Your task to perform on an android device: open app "VLC for Android" (install if not already installed) and enter user name: "Yves@outlook.com" and password: "internally" Image 0: 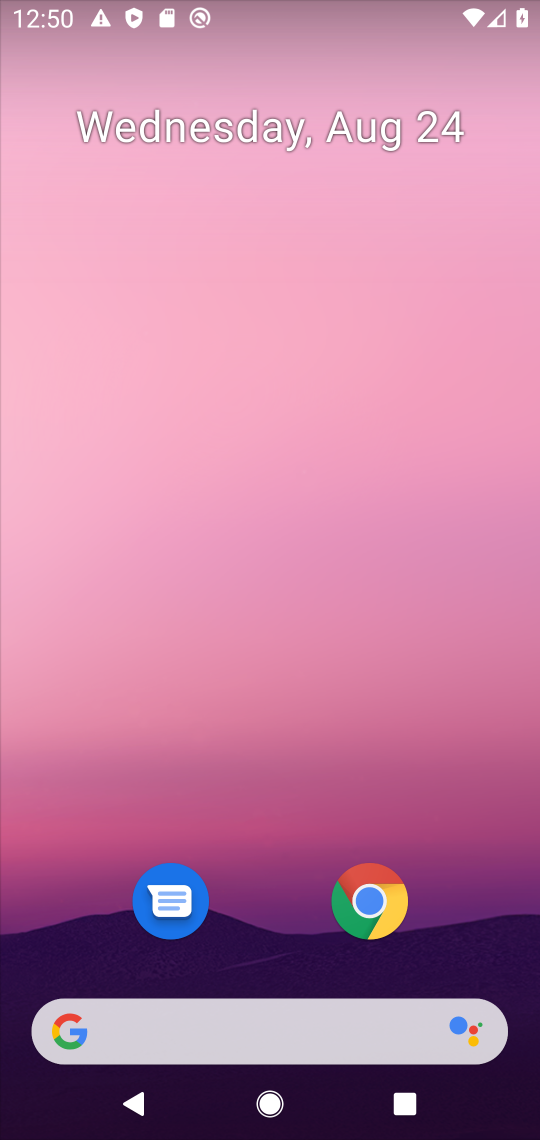
Step 0: drag from (241, 961) to (346, 25)
Your task to perform on an android device: open app "VLC for Android" (install if not already installed) and enter user name: "Yves@outlook.com" and password: "internally" Image 1: 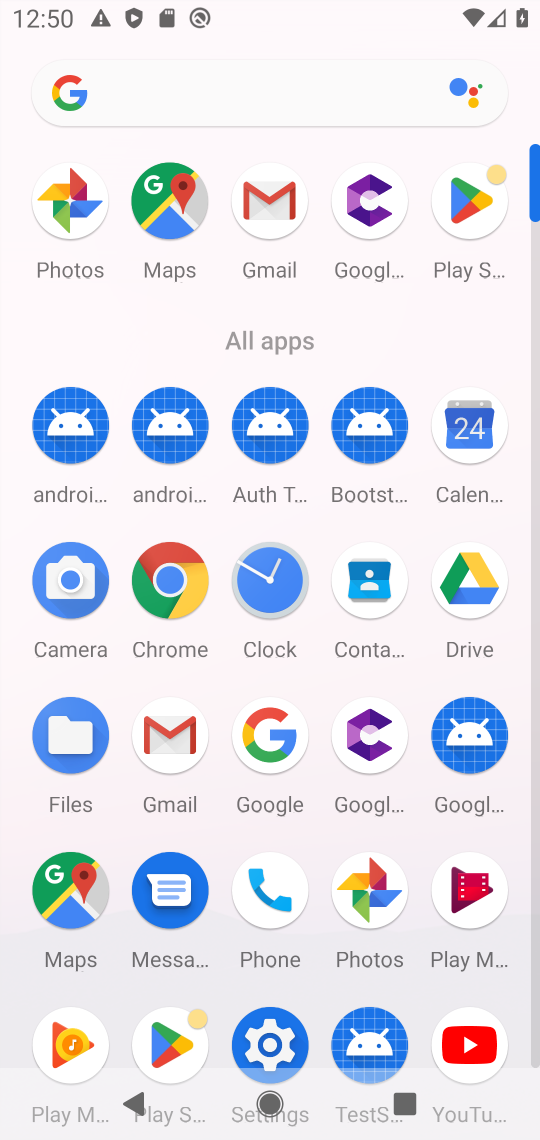
Step 1: click (466, 187)
Your task to perform on an android device: open app "VLC for Android" (install if not already installed) and enter user name: "Yves@outlook.com" and password: "internally" Image 2: 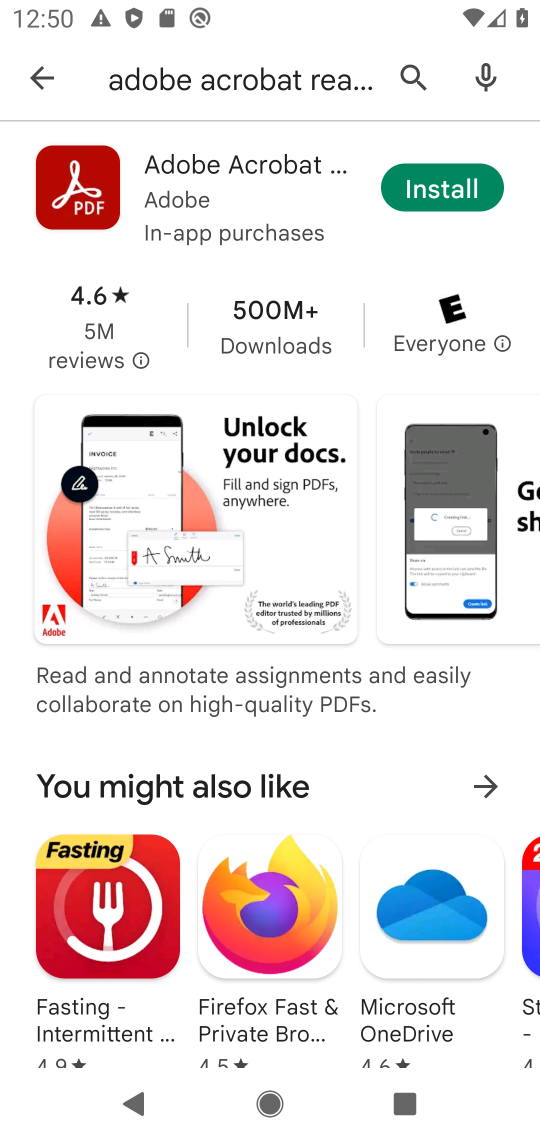
Step 2: click (416, 59)
Your task to perform on an android device: open app "VLC for Android" (install if not already installed) and enter user name: "Yves@outlook.com" and password: "internally" Image 3: 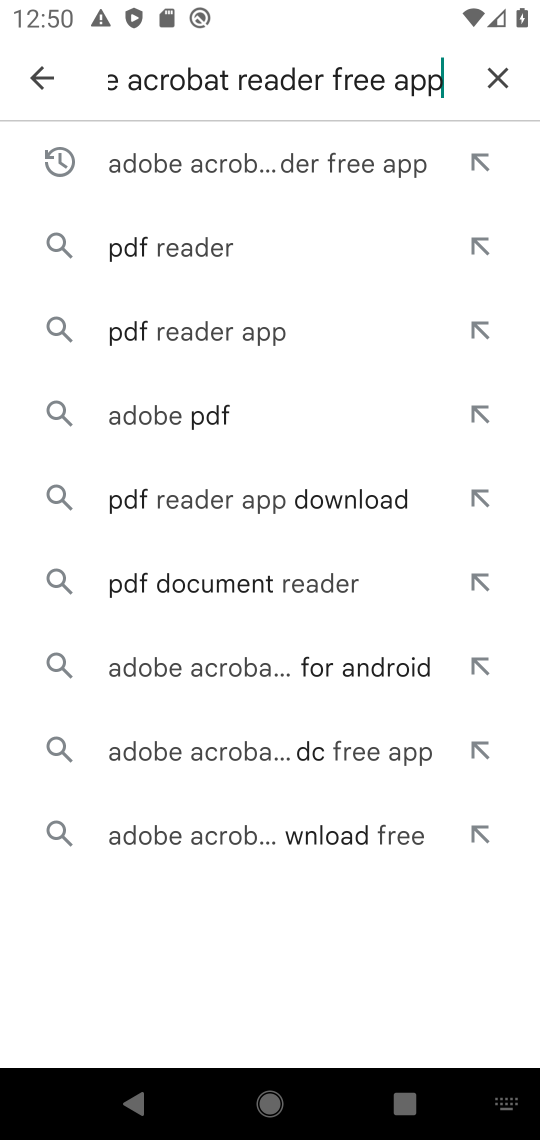
Step 3: click (500, 78)
Your task to perform on an android device: open app "VLC for Android" (install if not already installed) and enter user name: "Yves@outlook.com" and password: "internally" Image 4: 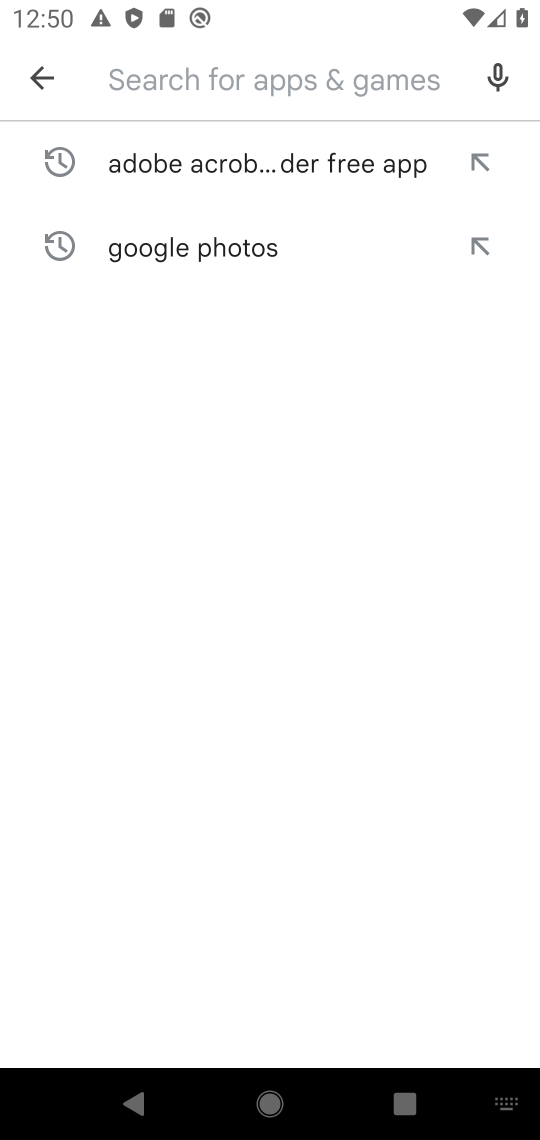
Step 4: type "vlc"
Your task to perform on an android device: open app "VLC for Android" (install if not already installed) and enter user name: "Yves@outlook.com" and password: "internally" Image 5: 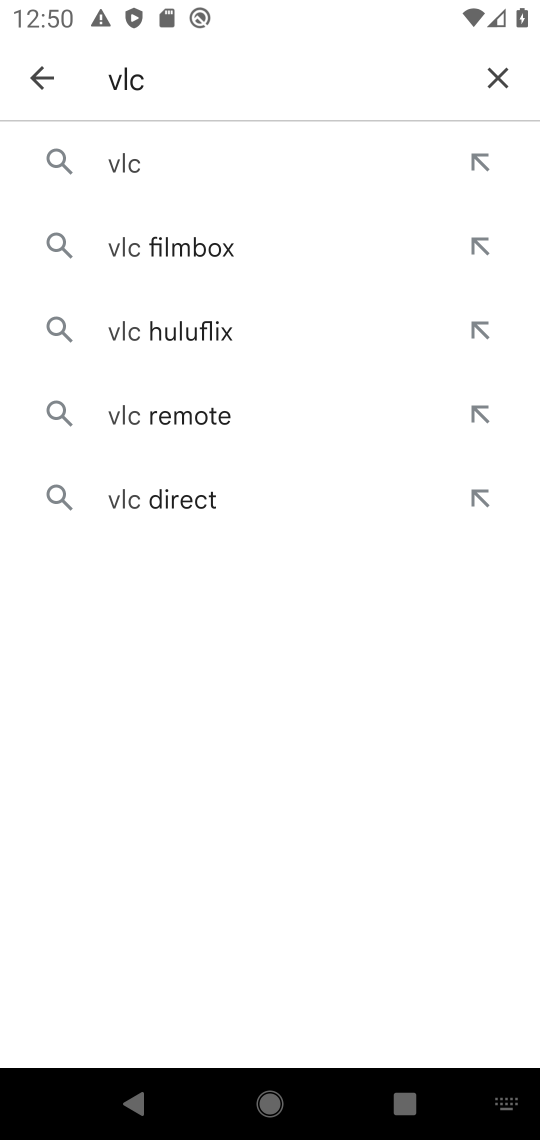
Step 5: click (167, 148)
Your task to perform on an android device: open app "VLC for Android" (install if not already installed) and enter user name: "Yves@outlook.com" and password: "internally" Image 6: 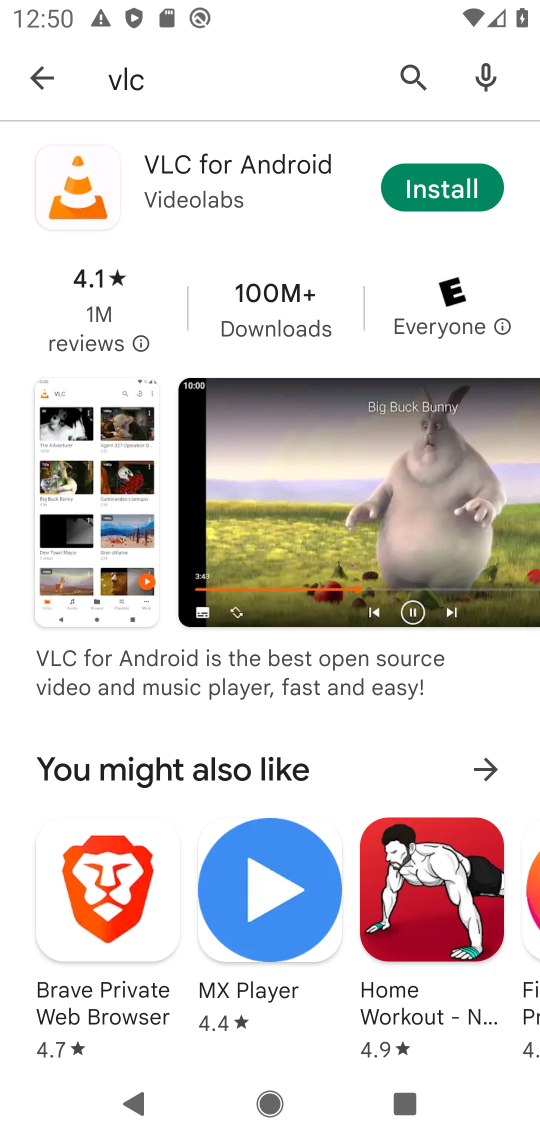
Step 6: click (415, 189)
Your task to perform on an android device: open app "VLC for Android" (install if not already installed) and enter user name: "Yves@outlook.com" and password: "internally" Image 7: 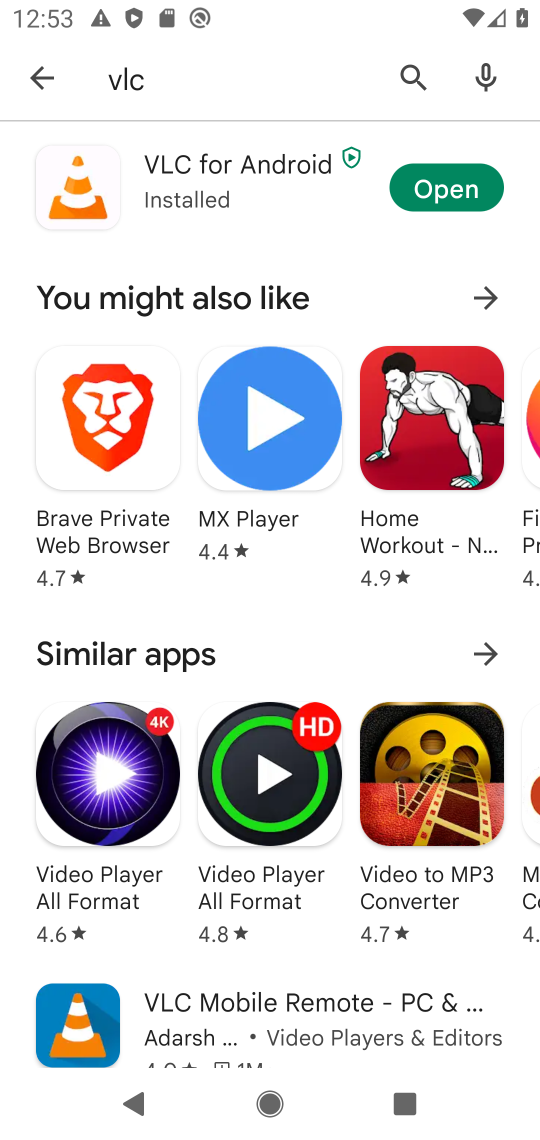
Step 7: click (418, 196)
Your task to perform on an android device: open app "VLC for Android" (install if not already installed) and enter user name: "Yves@outlook.com" and password: "internally" Image 8: 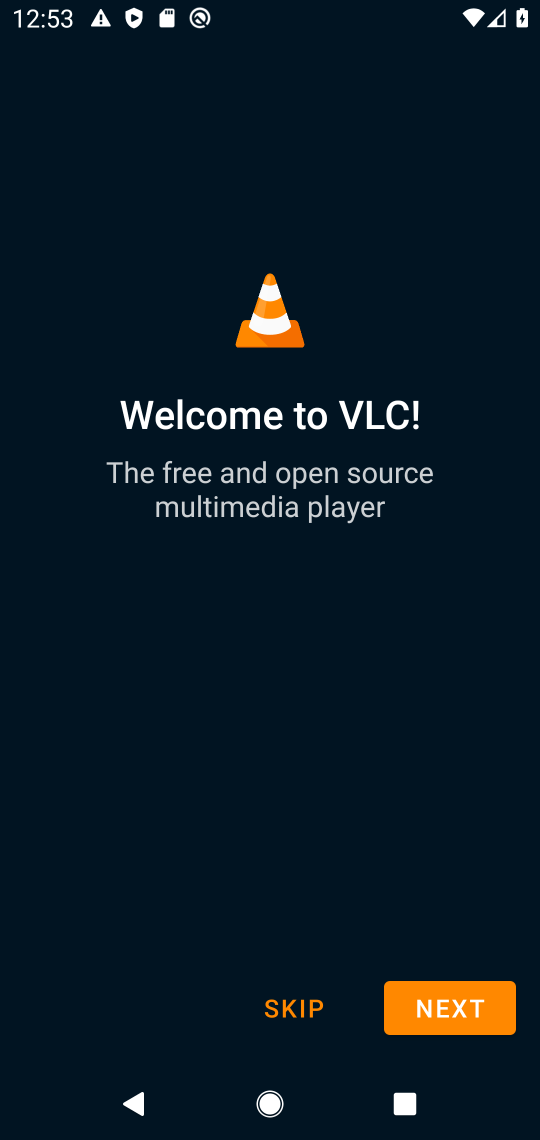
Step 8: click (301, 1003)
Your task to perform on an android device: open app "VLC for Android" (install if not already installed) and enter user name: "Yves@outlook.com" and password: "internally" Image 9: 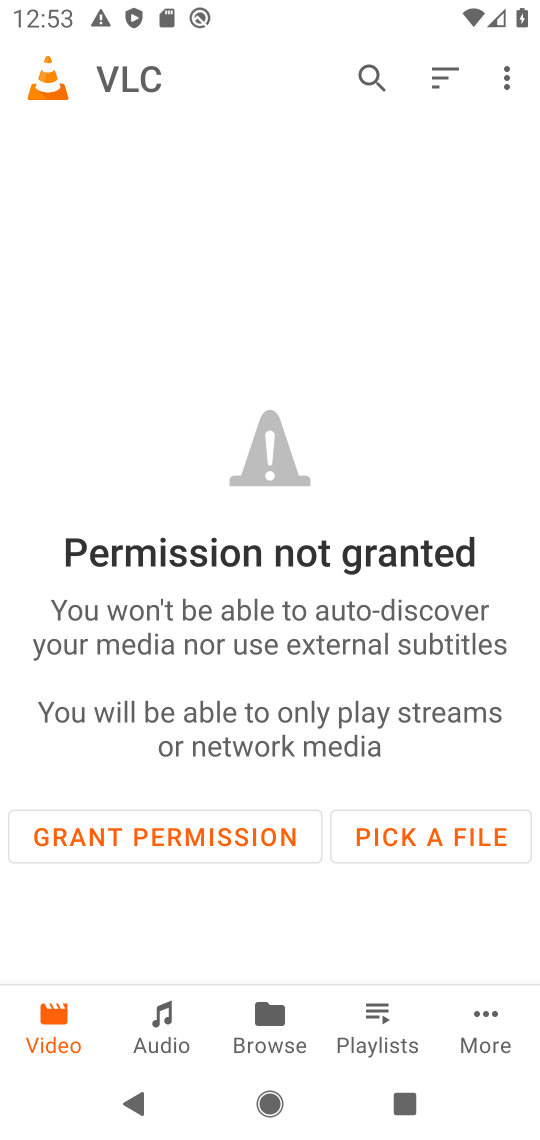
Step 9: task complete